Your task to perform on an android device: Open maps Image 0: 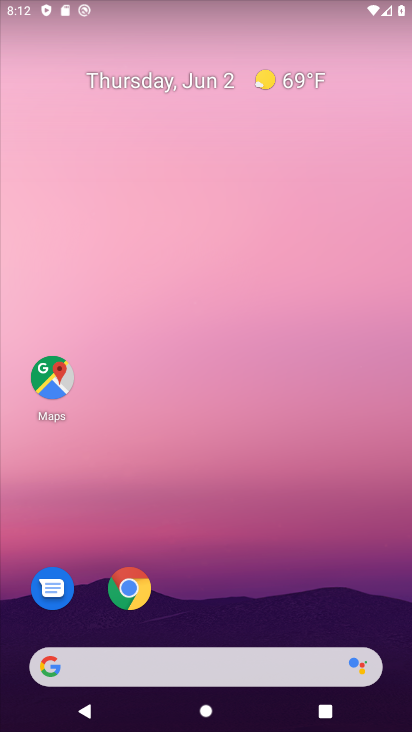
Step 0: drag from (243, 652) to (242, 40)
Your task to perform on an android device: Open maps Image 1: 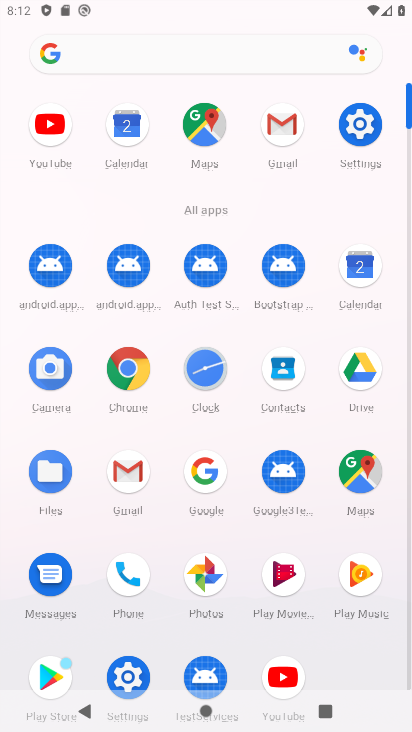
Step 1: click (359, 472)
Your task to perform on an android device: Open maps Image 2: 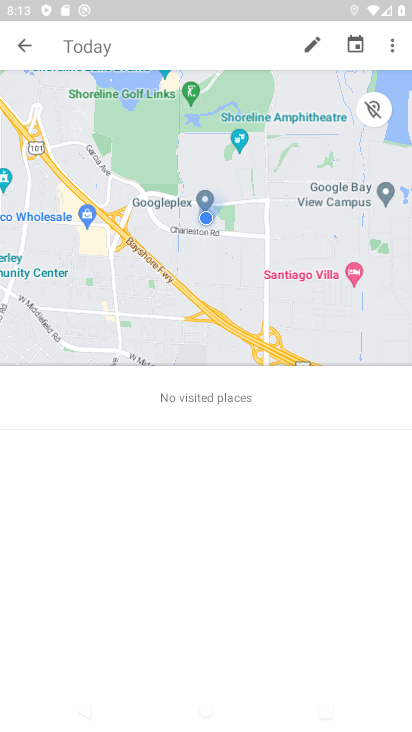
Step 2: task complete